Your task to perform on an android device: Open Youtube and go to "Your channel" Image 0: 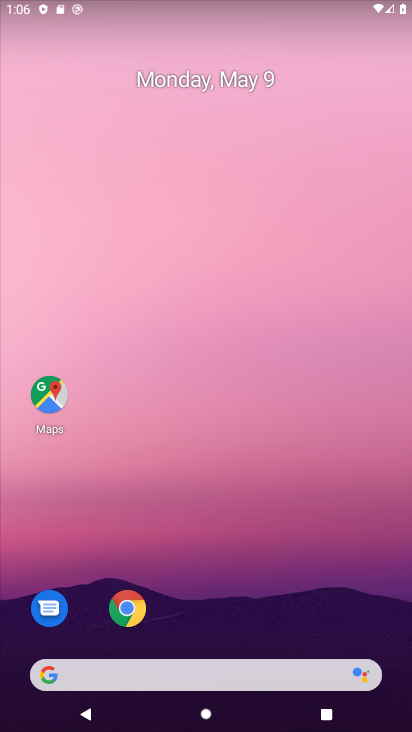
Step 0: click (378, 602)
Your task to perform on an android device: Open Youtube and go to "Your channel" Image 1: 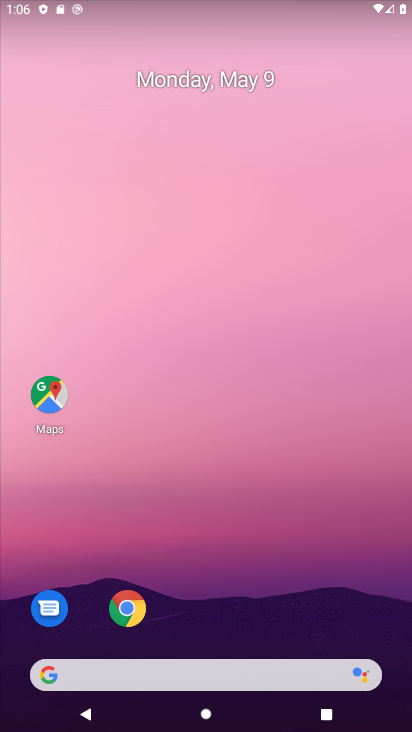
Step 1: drag from (298, 575) to (329, 47)
Your task to perform on an android device: Open Youtube and go to "Your channel" Image 2: 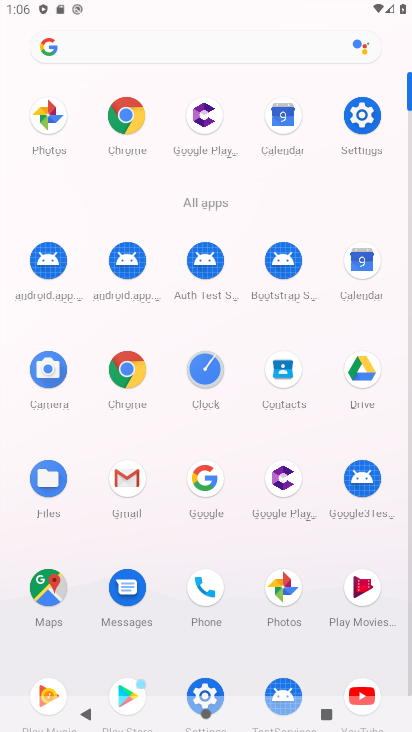
Step 2: click (376, 688)
Your task to perform on an android device: Open Youtube and go to "Your channel" Image 3: 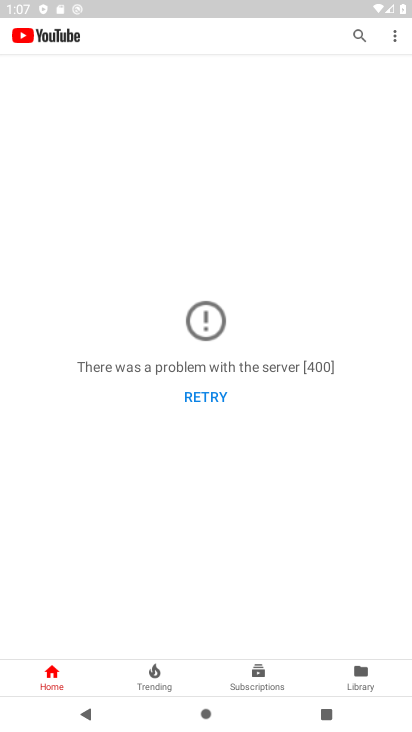
Step 3: task complete